Your task to perform on an android device: toggle airplane mode Image 0: 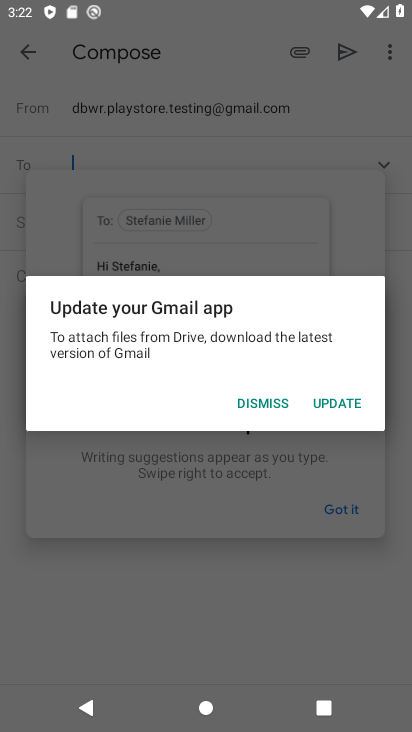
Step 0: press home button
Your task to perform on an android device: toggle airplane mode Image 1: 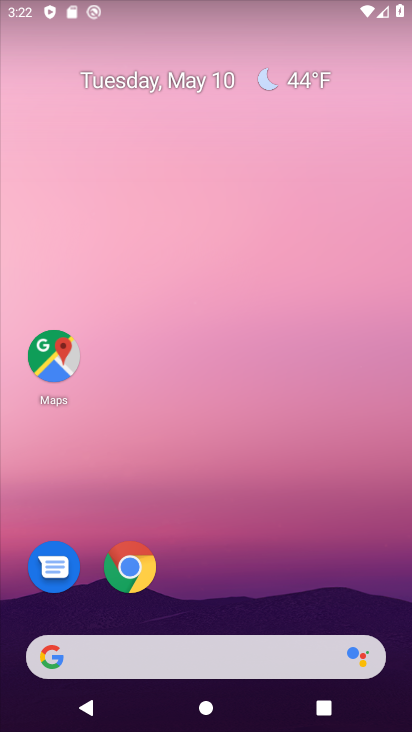
Step 1: drag from (219, 589) to (253, 65)
Your task to perform on an android device: toggle airplane mode Image 2: 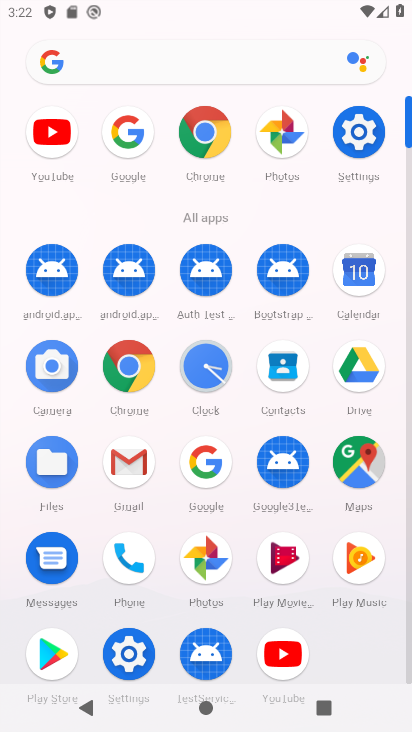
Step 2: click (356, 134)
Your task to perform on an android device: toggle airplane mode Image 3: 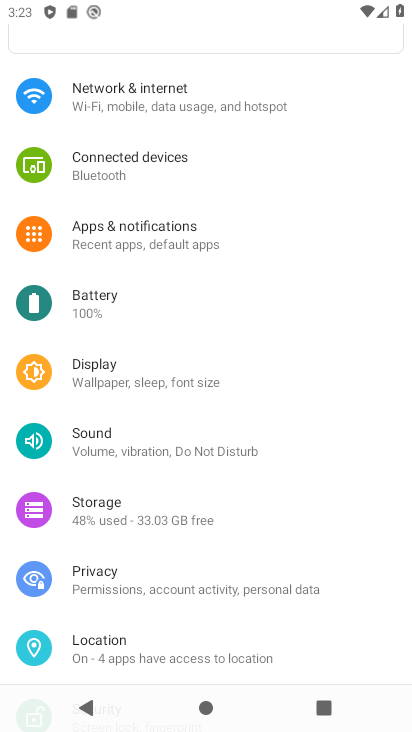
Step 3: click (152, 91)
Your task to perform on an android device: toggle airplane mode Image 4: 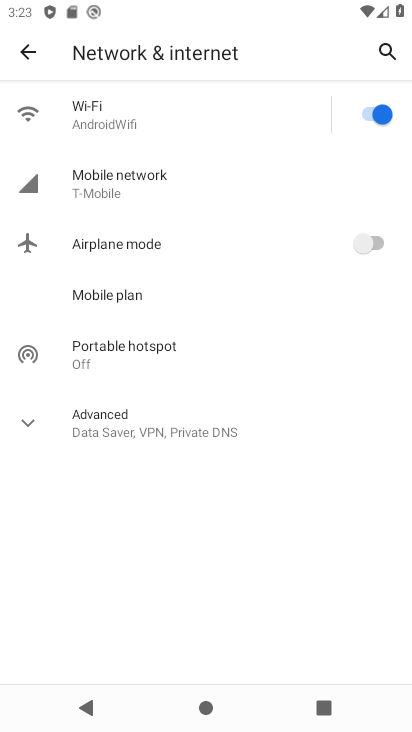
Step 4: click (366, 246)
Your task to perform on an android device: toggle airplane mode Image 5: 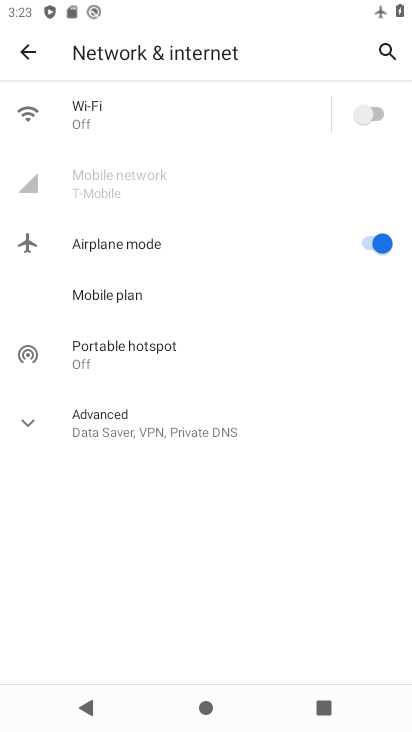
Step 5: task complete